Your task to perform on an android device: open chrome and create a bookmark for the current page Image 0: 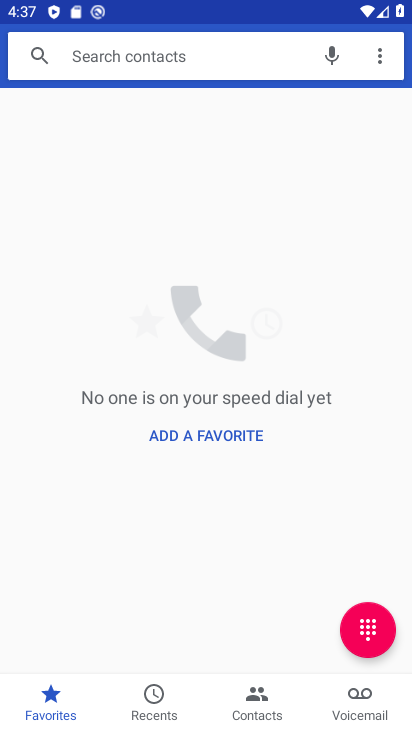
Step 0: press home button
Your task to perform on an android device: open chrome and create a bookmark for the current page Image 1: 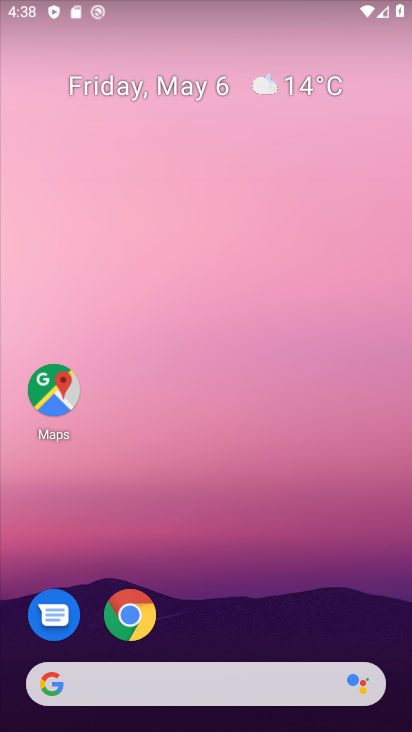
Step 1: click (135, 610)
Your task to perform on an android device: open chrome and create a bookmark for the current page Image 2: 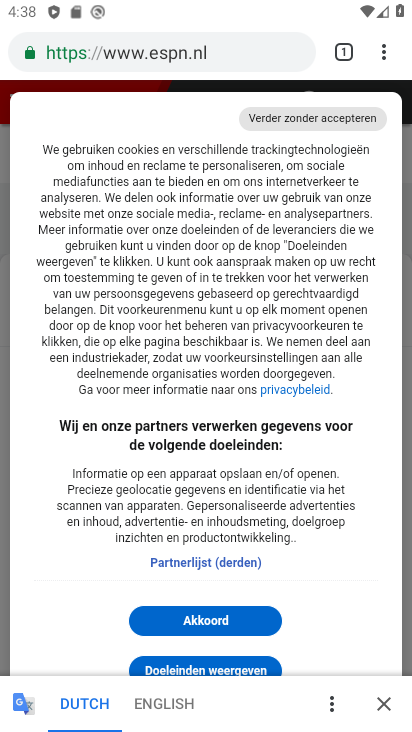
Step 2: click (382, 52)
Your task to perform on an android device: open chrome and create a bookmark for the current page Image 3: 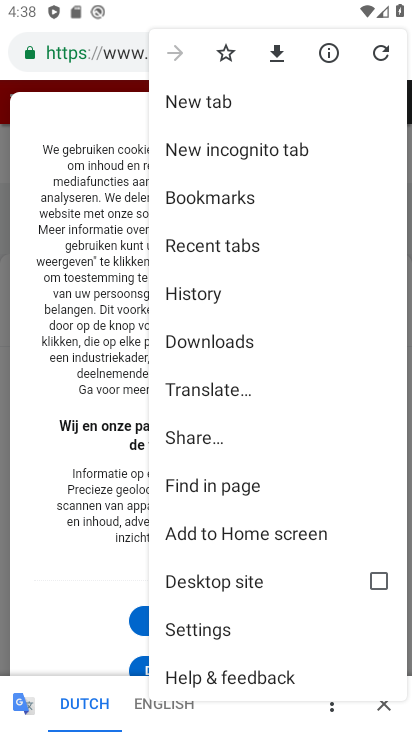
Step 3: click (224, 52)
Your task to perform on an android device: open chrome and create a bookmark for the current page Image 4: 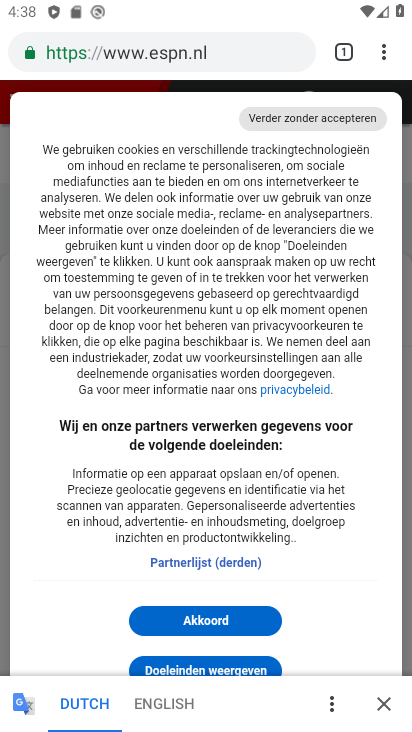
Step 4: task complete